Your task to perform on an android device: toggle translation in the chrome app Image 0: 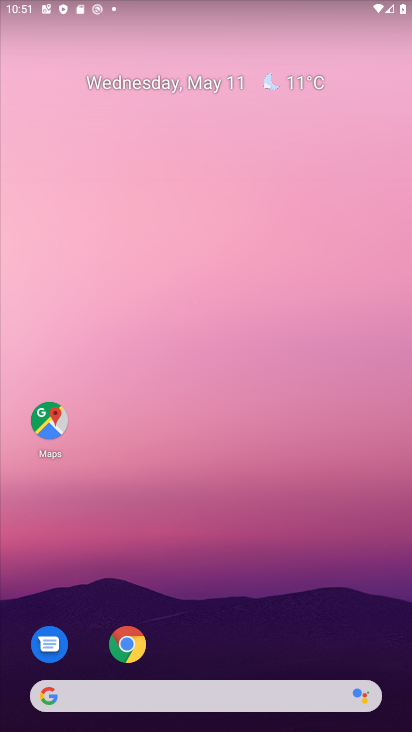
Step 0: click (124, 639)
Your task to perform on an android device: toggle translation in the chrome app Image 1: 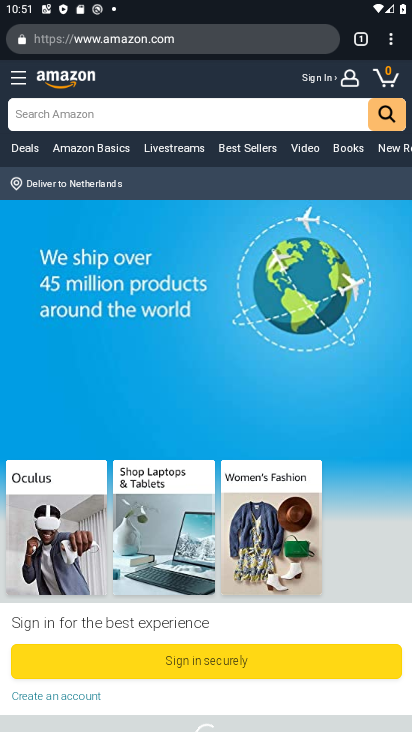
Step 1: click (393, 39)
Your task to perform on an android device: toggle translation in the chrome app Image 2: 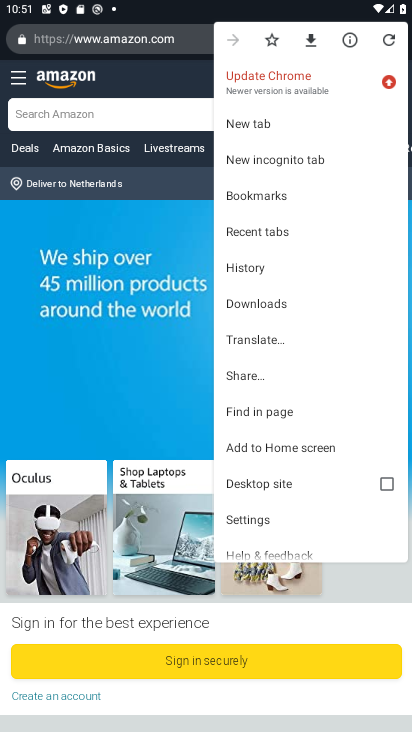
Step 2: click (262, 517)
Your task to perform on an android device: toggle translation in the chrome app Image 3: 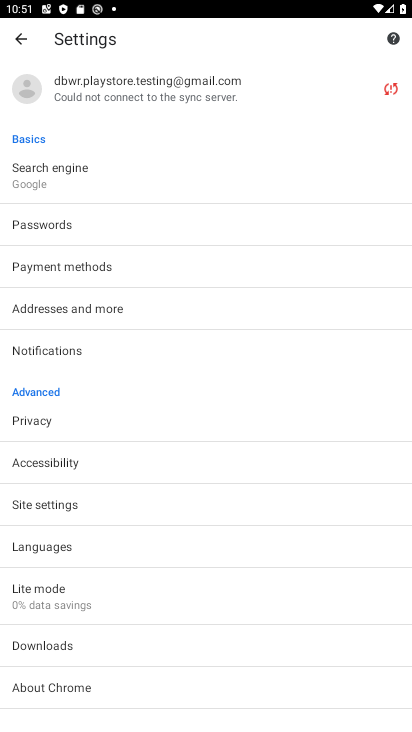
Step 3: click (79, 544)
Your task to perform on an android device: toggle translation in the chrome app Image 4: 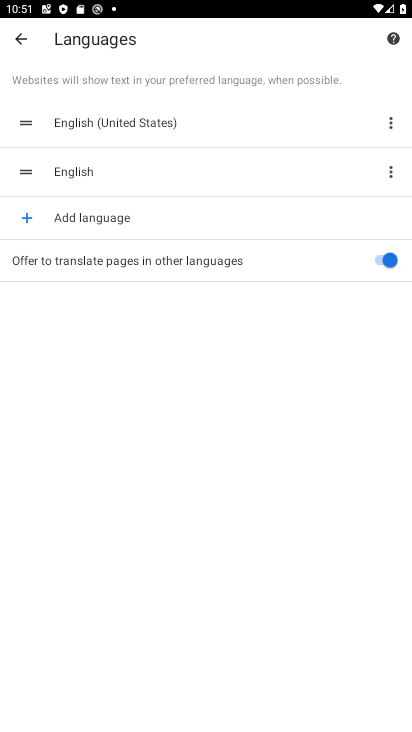
Step 4: click (376, 260)
Your task to perform on an android device: toggle translation in the chrome app Image 5: 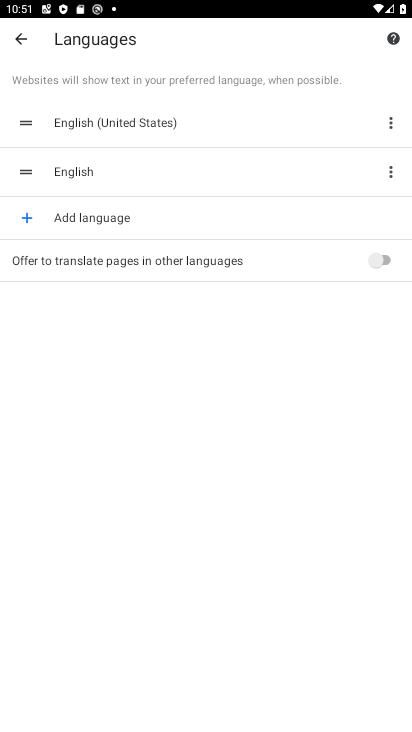
Step 5: task complete